Your task to perform on an android device: Open the calendar app, open the side menu, and click the "Day" option Image 0: 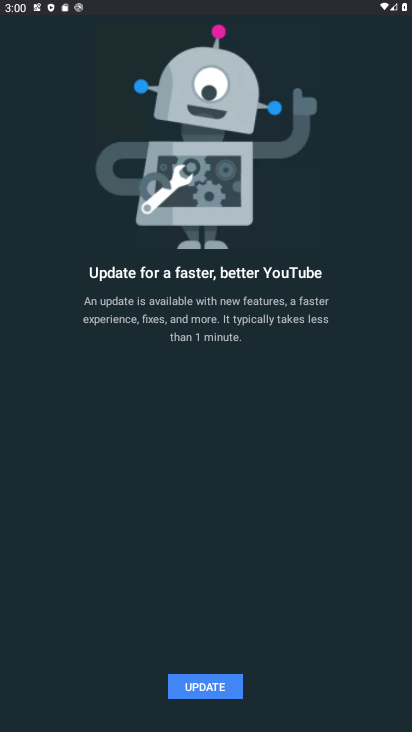
Step 0: press home button
Your task to perform on an android device: Open the calendar app, open the side menu, and click the "Day" option Image 1: 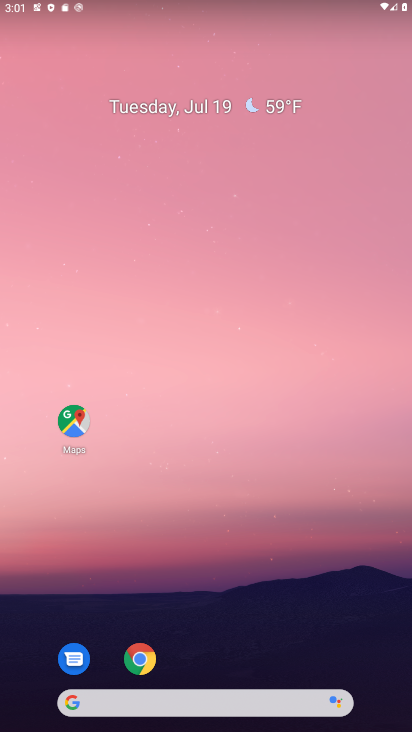
Step 1: drag from (182, 698) to (327, 186)
Your task to perform on an android device: Open the calendar app, open the side menu, and click the "Day" option Image 2: 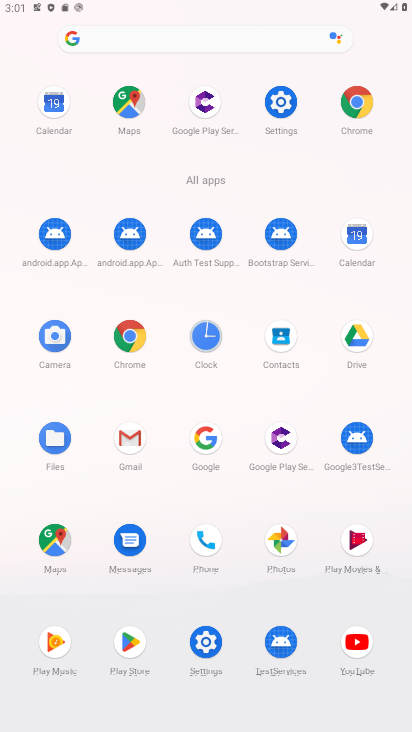
Step 2: click (358, 238)
Your task to perform on an android device: Open the calendar app, open the side menu, and click the "Day" option Image 3: 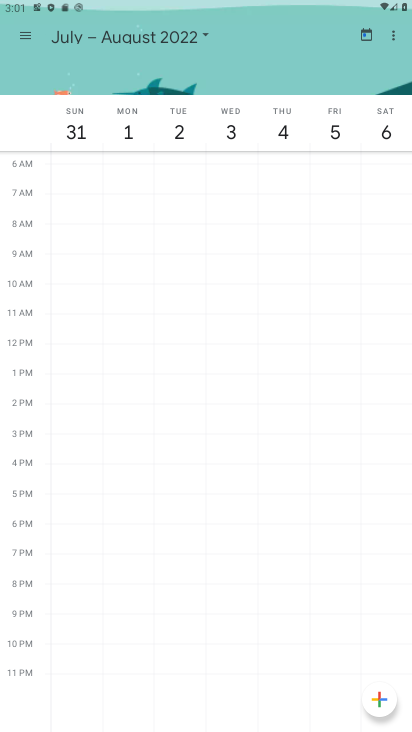
Step 3: click (368, 35)
Your task to perform on an android device: Open the calendar app, open the side menu, and click the "Day" option Image 4: 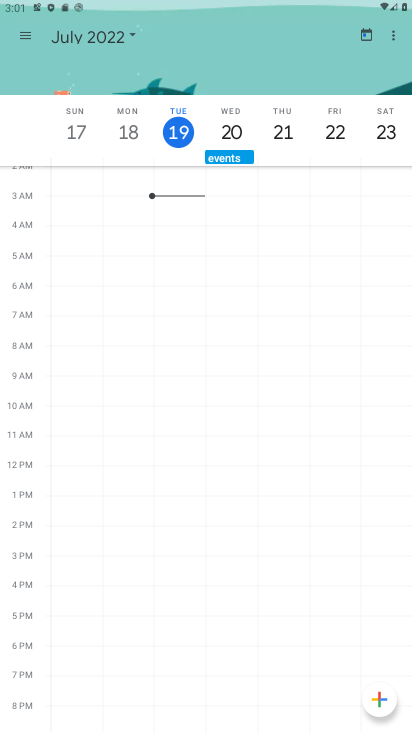
Step 4: click (21, 33)
Your task to perform on an android device: Open the calendar app, open the side menu, and click the "Day" option Image 5: 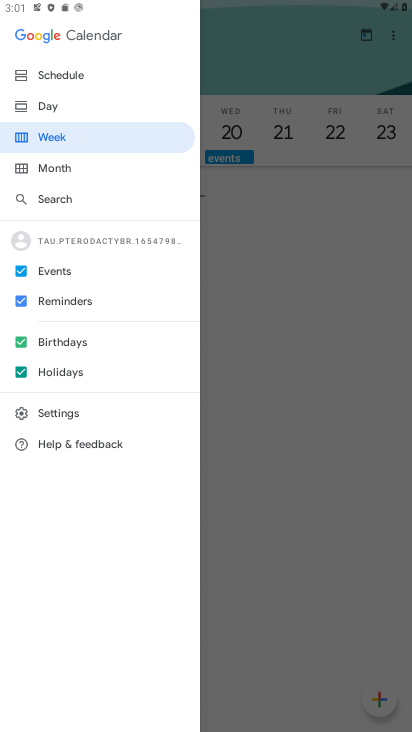
Step 5: click (42, 106)
Your task to perform on an android device: Open the calendar app, open the side menu, and click the "Day" option Image 6: 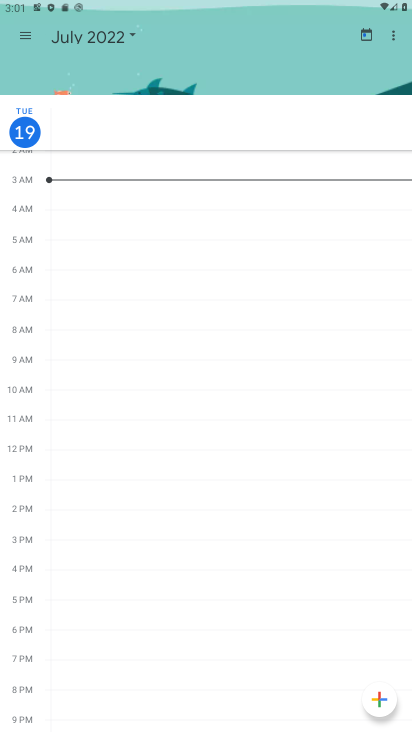
Step 6: task complete